Your task to perform on an android device: Go to Wikipedia Image 0: 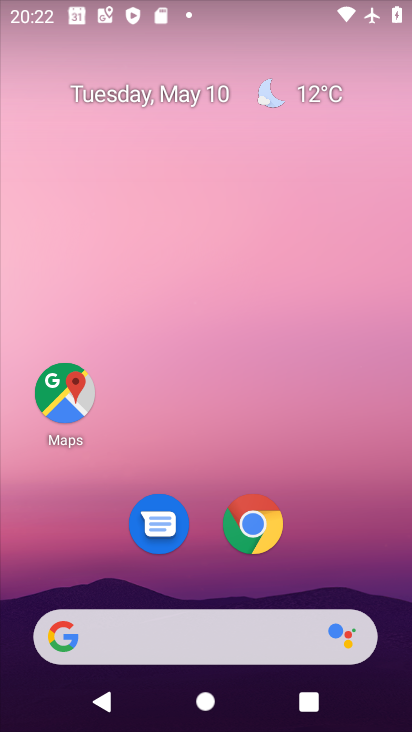
Step 0: click (252, 518)
Your task to perform on an android device: Go to Wikipedia Image 1: 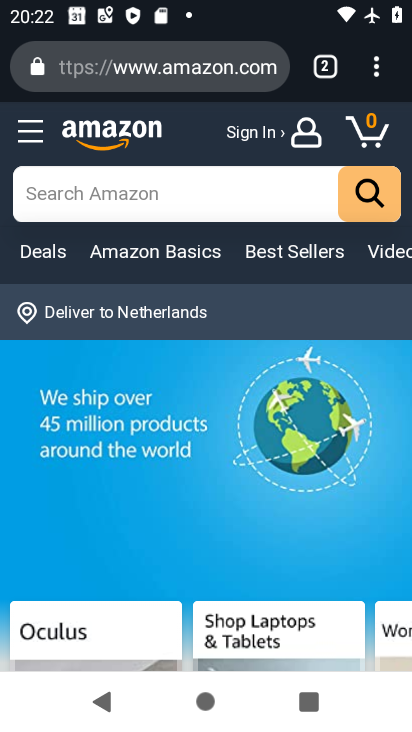
Step 1: click (375, 71)
Your task to perform on an android device: Go to Wikipedia Image 2: 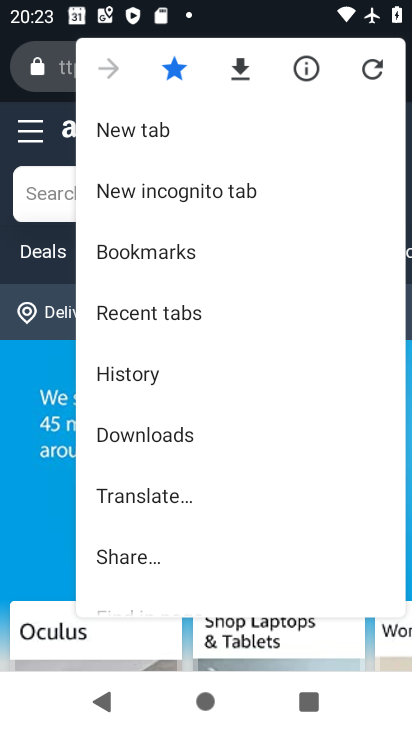
Step 2: click (243, 122)
Your task to perform on an android device: Go to Wikipedia Image 3: 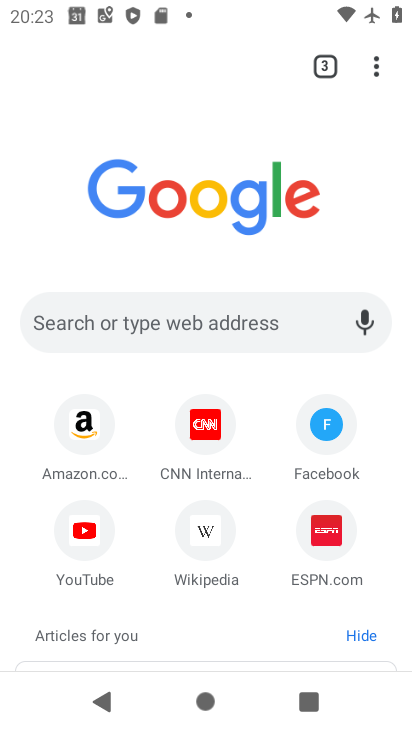
Step 3: click (203, 524)
Your task to perform on an android device: Go to Wikipedia Image 4: 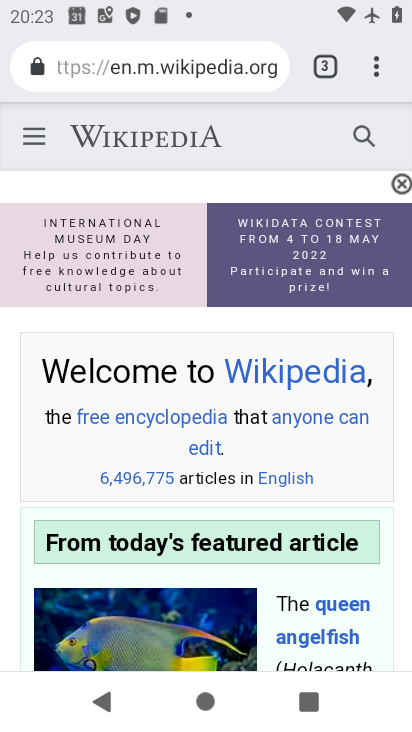
Step 4: task complete